Your task to perform on an android device: Is it going to rain tomorrow? Image 0: 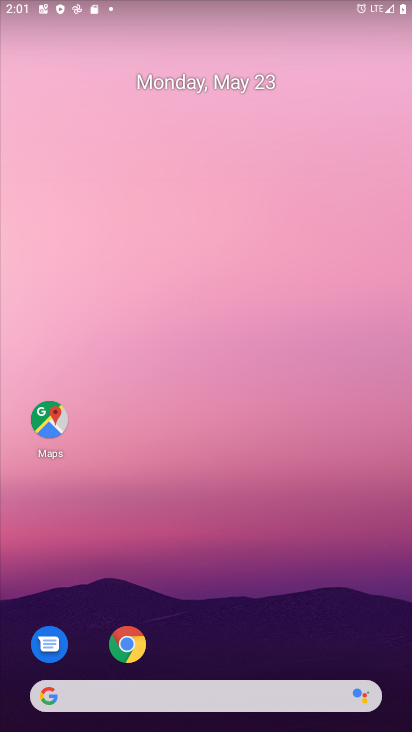
Step 0: drag from (327, 629) to (311, 76)
Your task to perform on an android device: Is it going to rain tomorrow? Image 1: 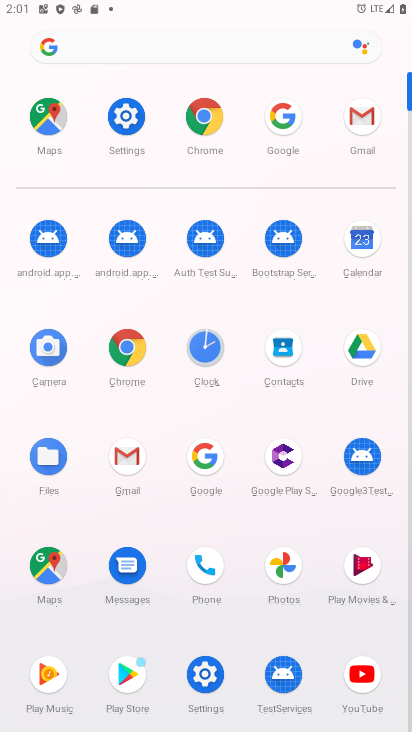
Step 1: click (213, 464)
Your task to perform on an android device: Is it going to rain tomorrow? Image 2: 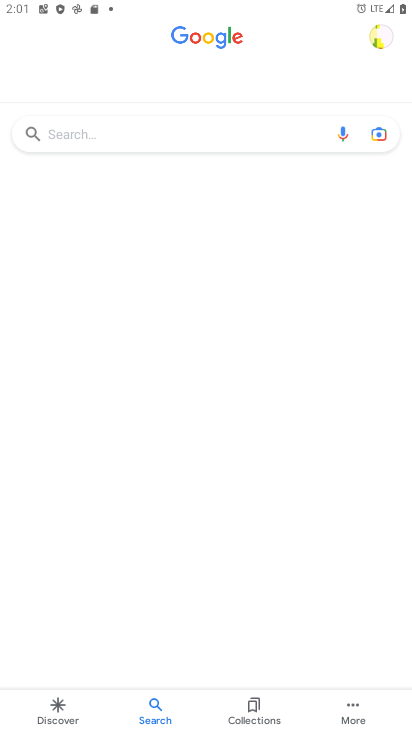
Step 2: click (153, 145)
Your task to perform on an android device: Is it going to rain tomorrow? Image 3: 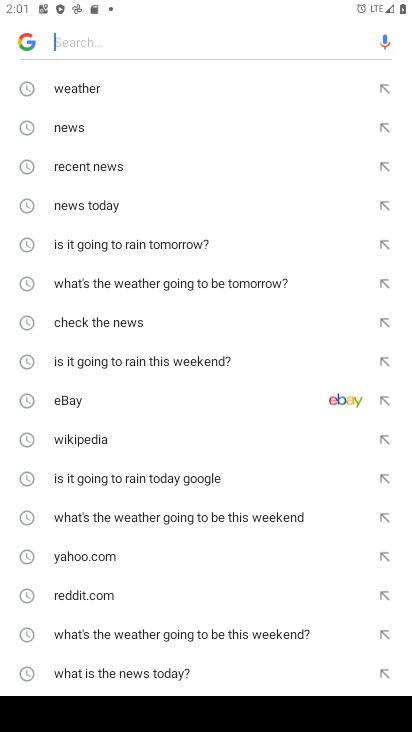
Step 3: click (165, 255)
Your task to perform on an android device: Is it going to rain tomorrow? Image 4: 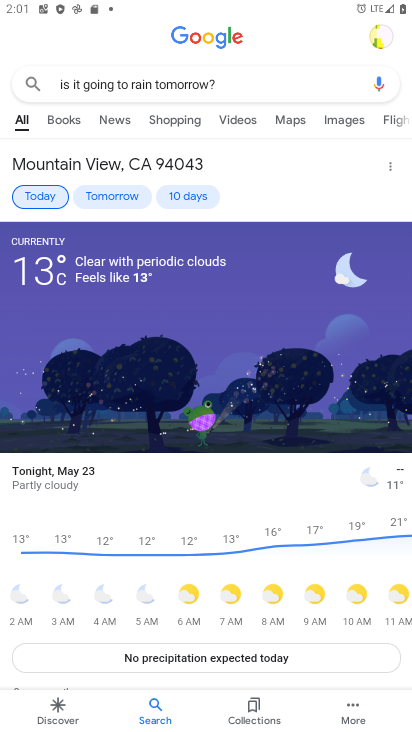
Step 4: task complete